Your task to perform on an android device: Search for seafood restaurants on Google Maps Image 0: 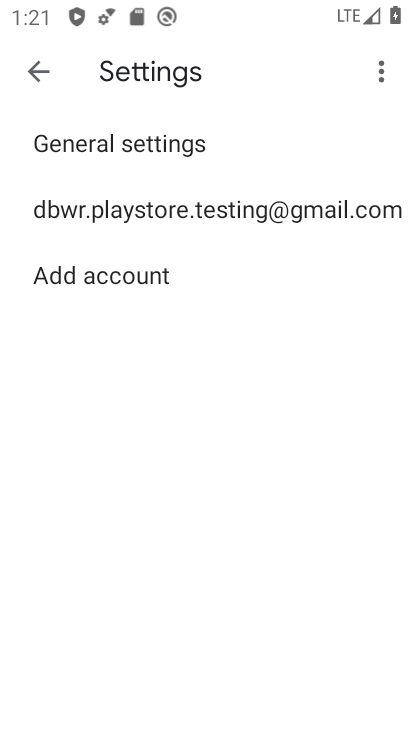
Step 0: press home button
Your task to perform on an android device: Search for seafood restaurants on Google Maps Image 1: 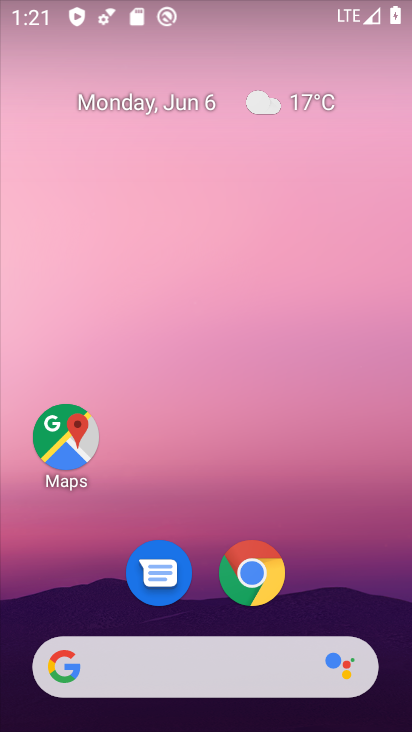
Step 1: drag from (361, 599) to (348, 146)
Your task to perform on an android device: Search for seafood restaurants on Google Maps Image 2: 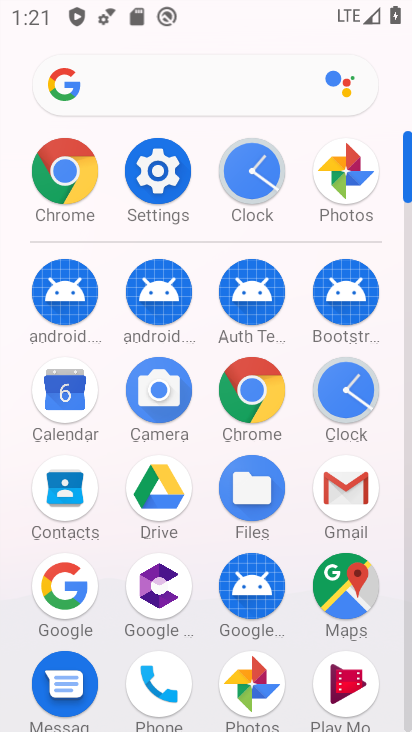
Step 2: click (352, 602)
Your task to perform on an android device: Search for seafood restaurants on Google Maps Image 3: 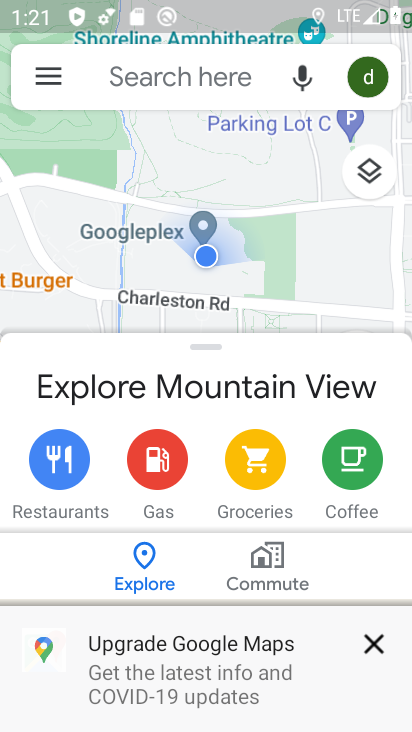
Step 3: click (159, 79)
Your task to perform on an android device: Search for seafood restaurants on Google Maps Image 4: 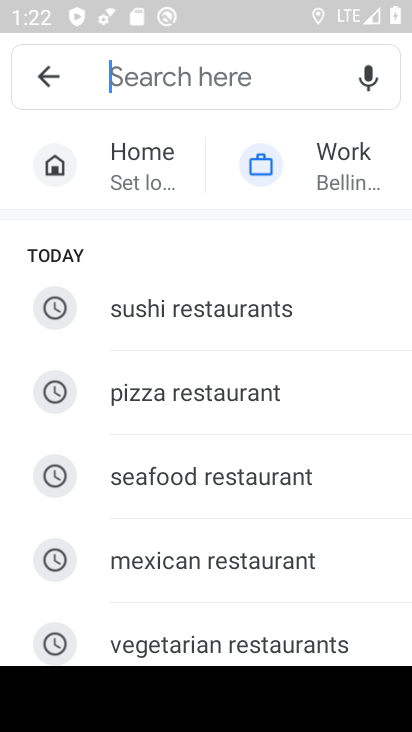
Step 4: type "seafood restatrbts"
Your task to perform on an android device: Search for seafood restaurants on Google Maps Image 5: 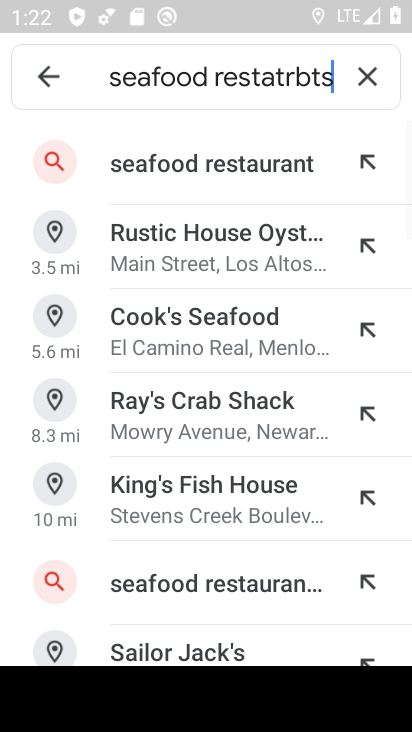
Step 5: click (190, 173)
Your task to perform on an android device: Search for seafood restaurants on Google Maps Image 6: 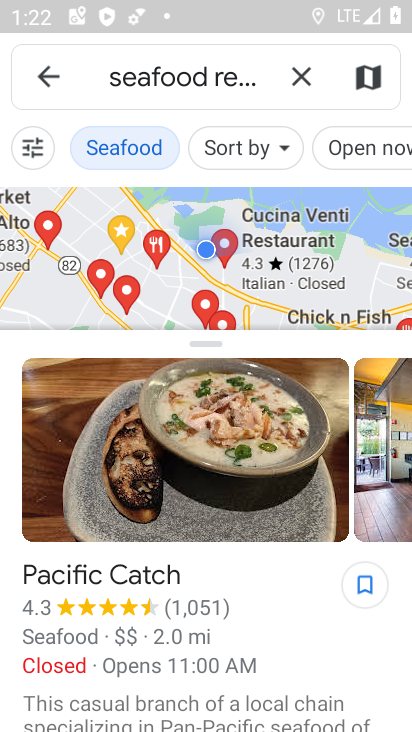
Step 6: task complete